Your task to perform on an android device: Go to battery settings Image 0: 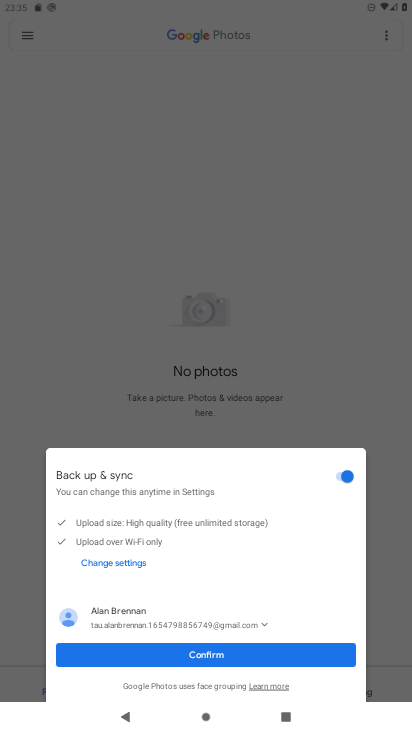
Step 0: drag from (201, 10) to (283, 636)
Your task to perform on an android device: Go to battery settings Image 1: 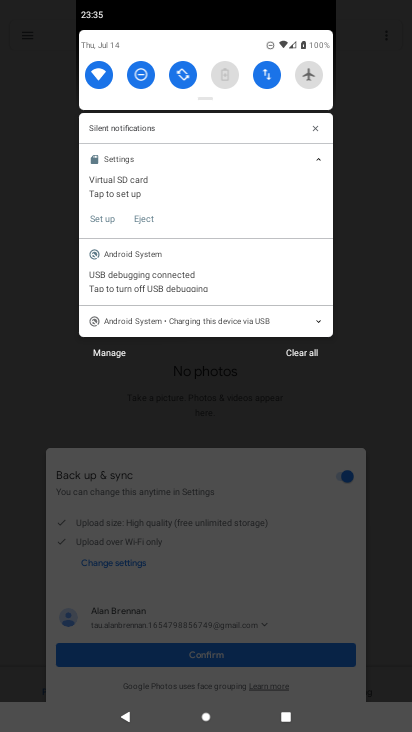
Step 1: click (229, 70)
Your task to perform on an android device: Go to battery settings Image 2: 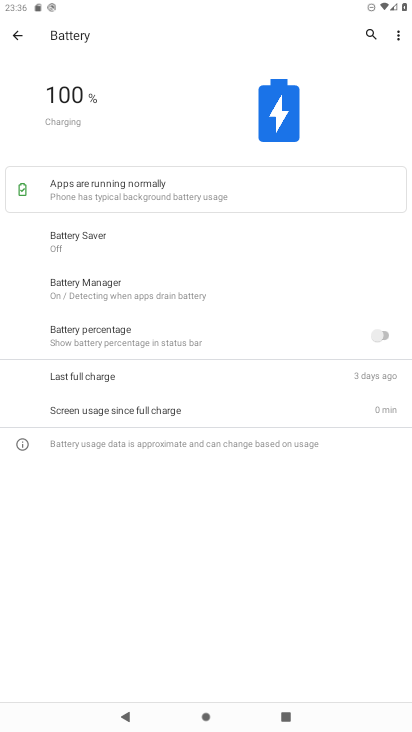
Step 2: task complete